Your task to perform on an android device: turn notification dots on Image 0: 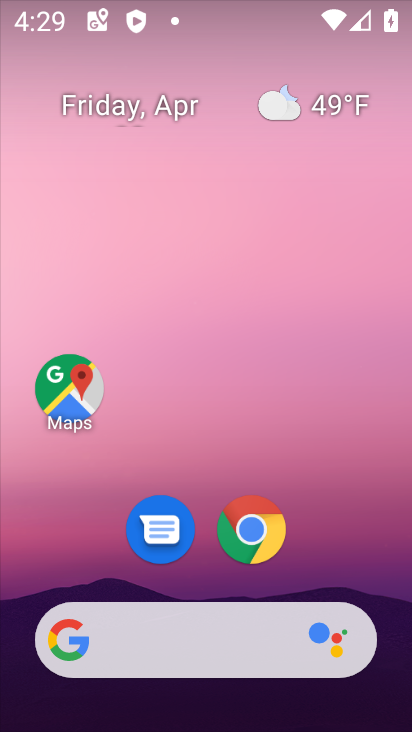
Step 0: drag from (206, 306) to (203, 112)
Your task to perform on an android device: turn notification dots on Image 1: 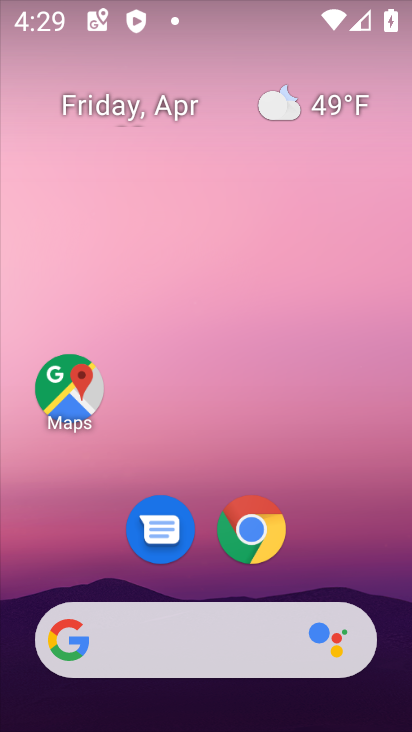
Step 1: drag from (195, 717) to (195, 156)
Your task to perform on an android device: turn notification dots on Image 2: 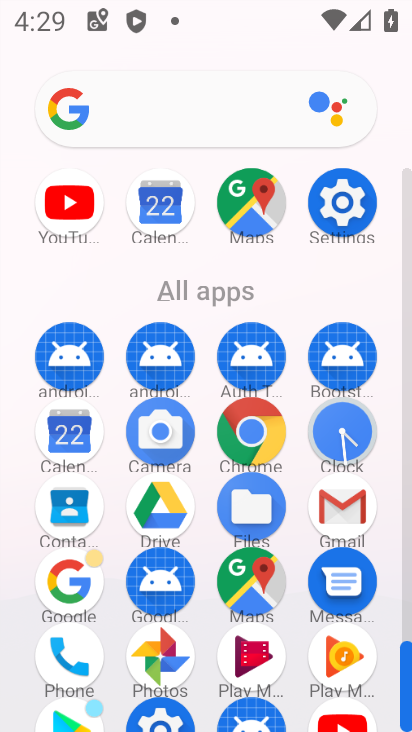
Step 2: click (342, 200)
Your task to perform on an android device: turn notification dots on Image 3: 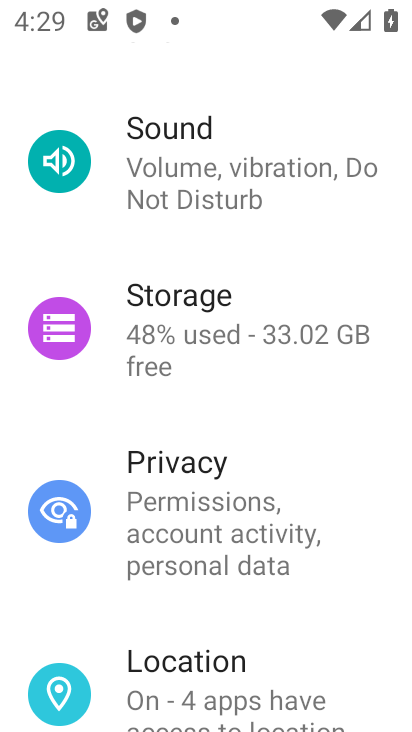
Step 3: drag from (208, 115) to (232, 574)
Your task to perform on an android device: turn notification dots on Image 4: 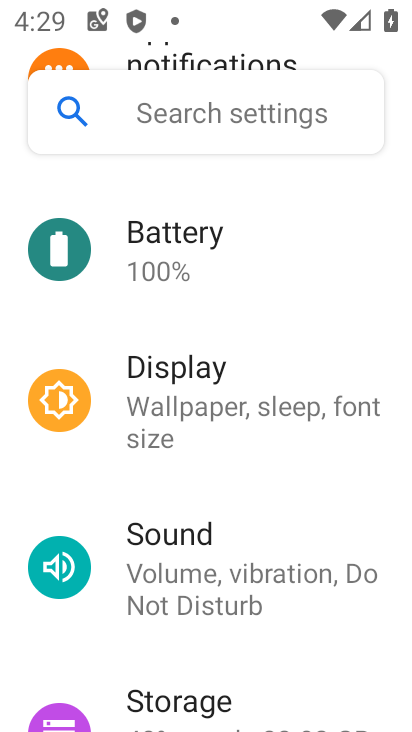
Step 4: drag from (217, 227) to (259, 548)
Your task to perform on an android device: turn notification dots on Image 5: 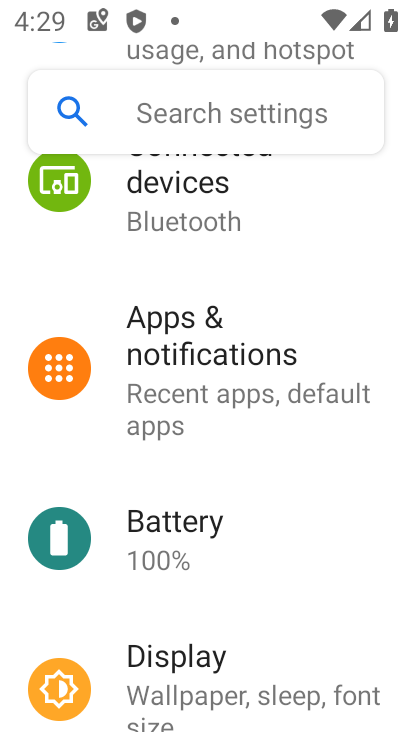
Step 5: click (189, 385)
Your task to perform on an android device: turn notification dots on Image 6: 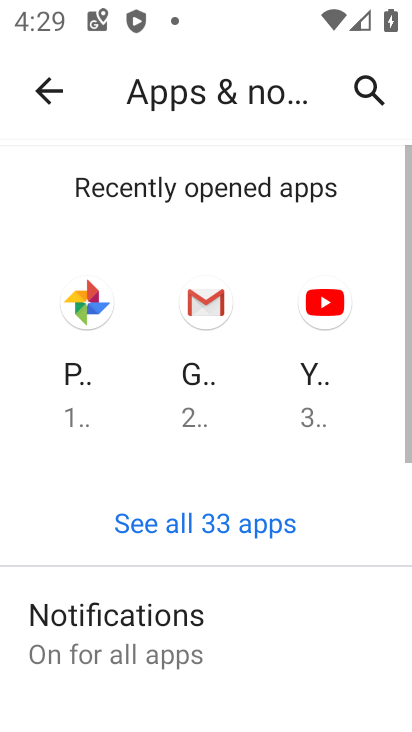
Step 6: drag from (226, 687) to (231, 394)
Your task to perform on an android device: turn notification dots on Image 7: 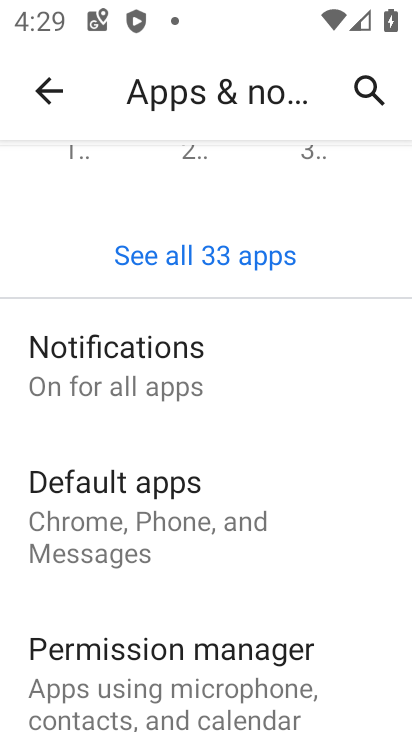
Step 7: click (122, 364)
Your task to perform on an android device: turn notification dots on Image 8: 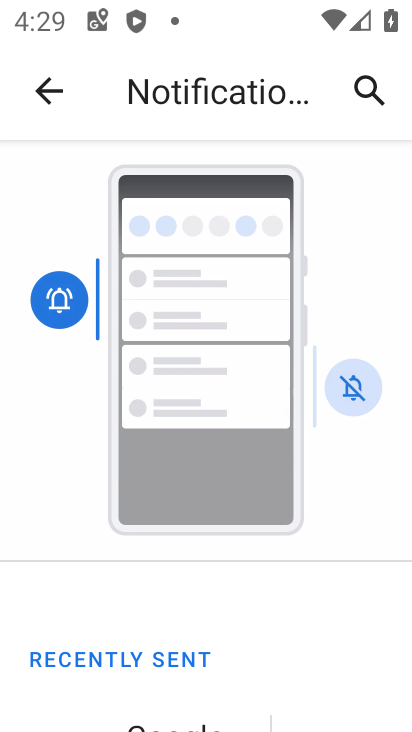
Step 8: drag from (268, 666) to (266, 355)
Your task to perform on an android device: turn notification dots on Image 9: 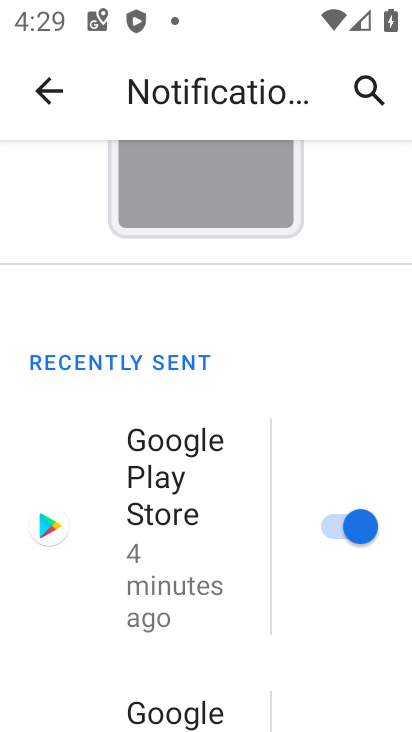
Step 9: drag from (229, 670) to (255, 207)
Your task to perform on an android device: turn notification dots on Image 10: 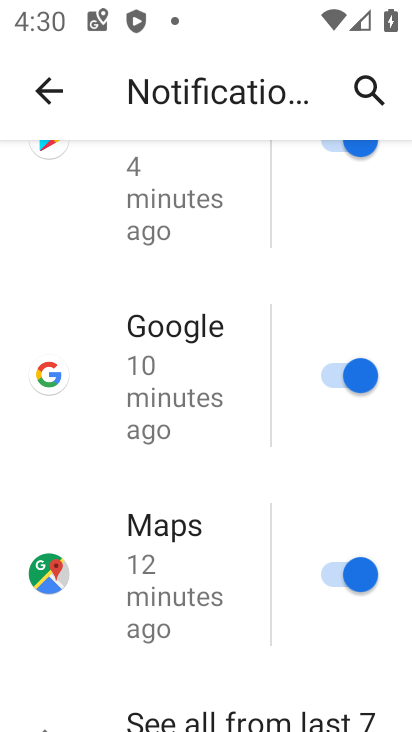
Step 10: drag from (228, 649) to (227, 155)
Your task to perform on an android device: turn notification dots on Image 11: 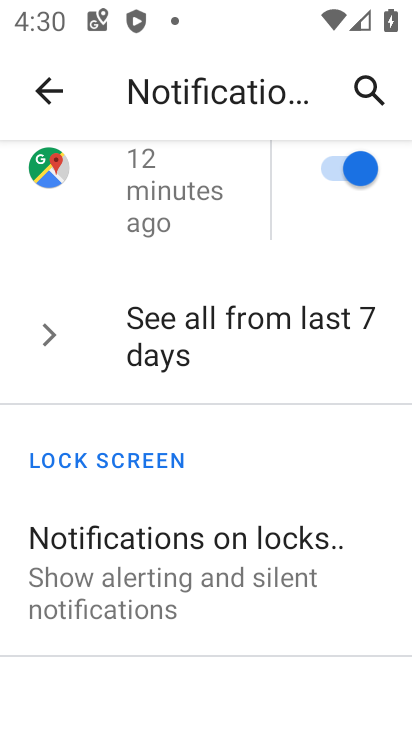
Step 11: drag from (153, 686) to (161, 228)
Your task to perform on an android device: turn notification dots on Image 12: 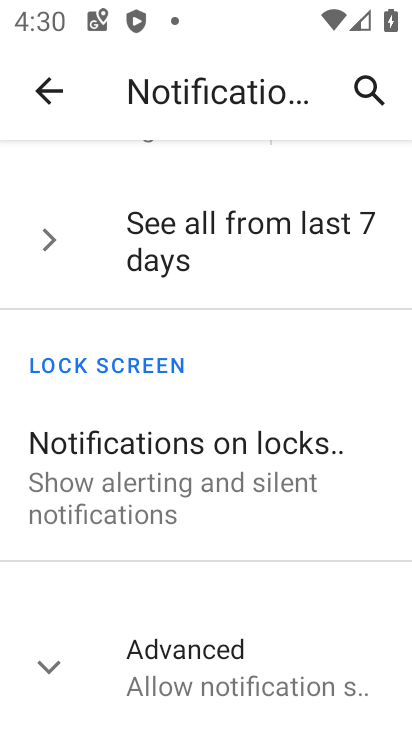
Step 12: click (172, 676)
Your task to perform on an android device: turn notification dots on Image 13: 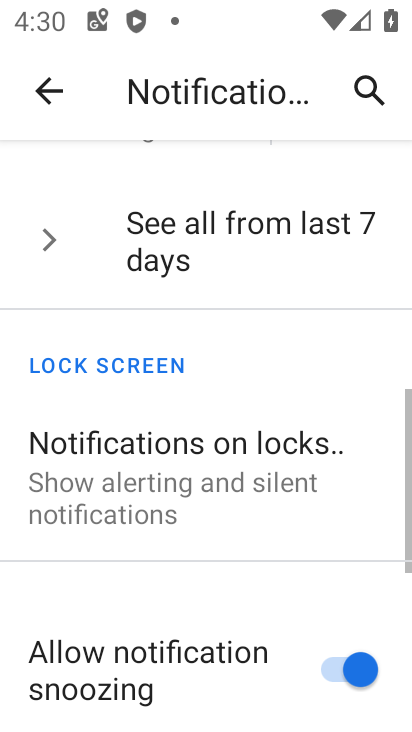
Step 13: task complete